Your task to perform on an android device: Search for dell xps on target, select the first entry, add it to the cart, then select checkout. Image 0: 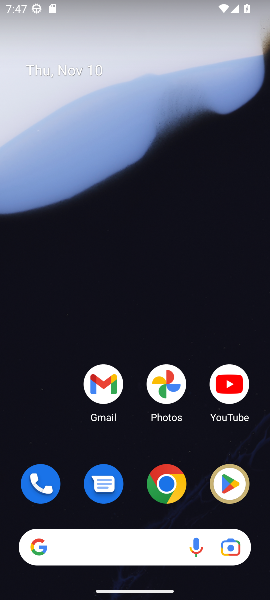
Step 0: click (162, 477)
Your task to perform on an android device: Search for dell xps on target, select the first entry, add it to the cart, then select checkout. Image 1: 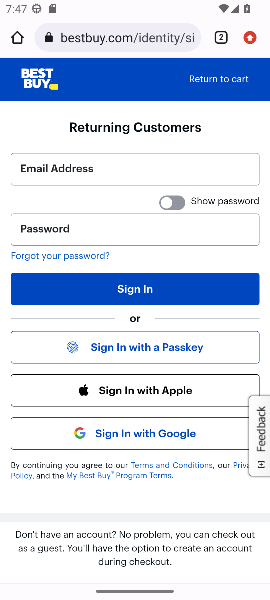
Step 1: click (138, 38)
Your task to perform on an android device: Search for dell xps on target, select the first entry, add it to the cart, then select checkout. Image 2: 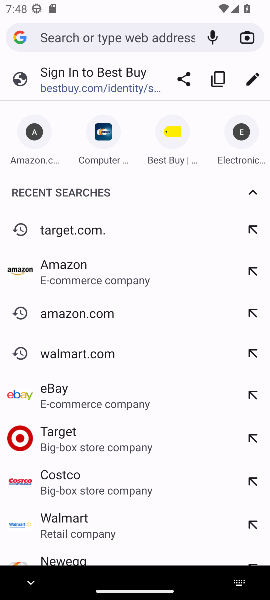
Step 2: click (71, 240)
Your task to perform on an android device: Search for dell xps on target, select the first entry, add it to the cart, then select checkout. Image 3: 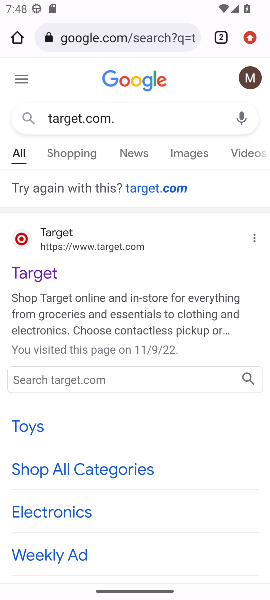
Step 3: click (34, 278)
Your task to perform on an android device: Search for dell xps on target, select the first entry, add it to the cart, then select checkout. Image 4: 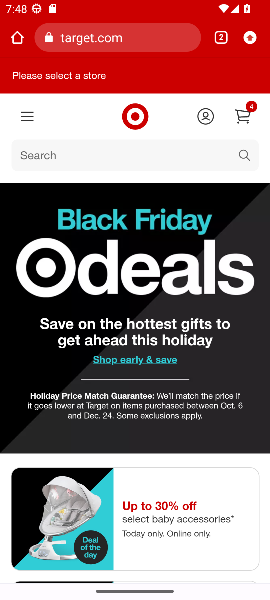
Step 4: click (242, 156)
Your task to perform on an android device: Search for dell xps on target, select the first entry, add it to the cart, then select checkout. Image 5: 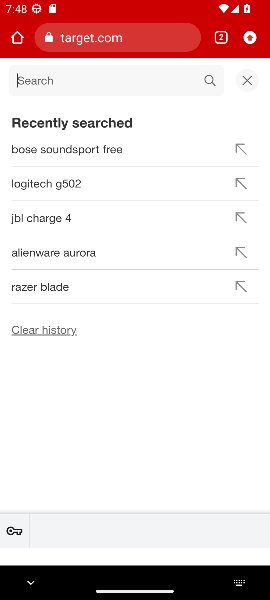
Step 5: type "dell xps"
Your task to perform on an android device: Search for dell xps on target, select the first entry, add it to the cart, then select checkout. Image 6: 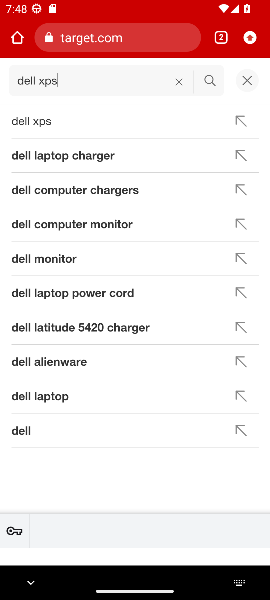
Step 6: click (34, 121)
Your task to perform on an android device: Search for dell xps on target, select the first entry, add it to the cart, then select checkout. Image 7: 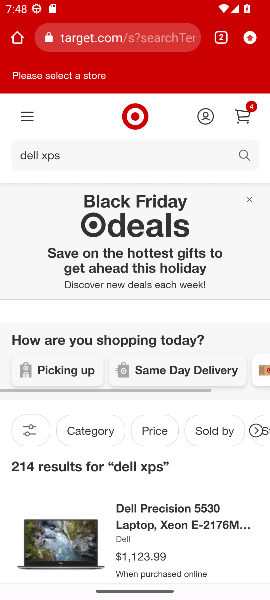
Step 7: task complete